Your task to perform on an android device: empty trash in google photos Image 0: 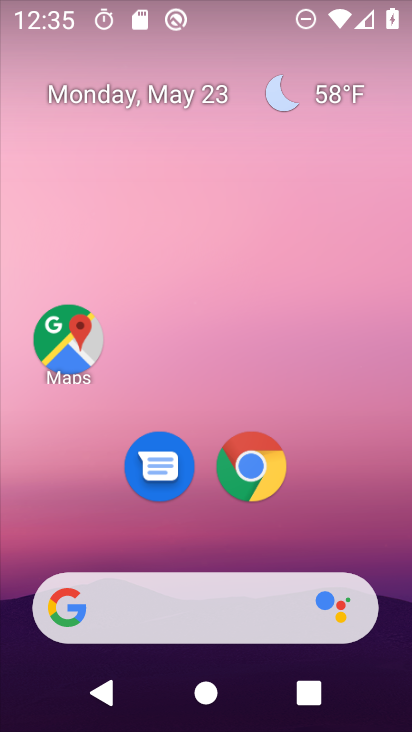
Step 0: drag from (193, 536) to (262, 102)
Your task to perform on an android device: empty trash in google photos Image 1: 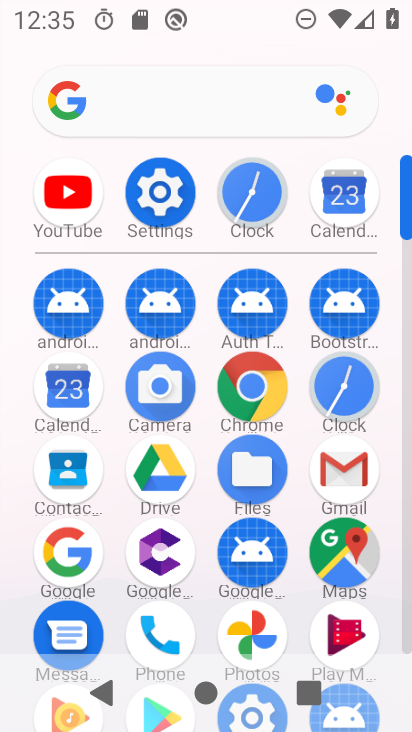
Step 1: click (252, 635)
Your task to perform on an android device: empty trash in google photos Image 2: 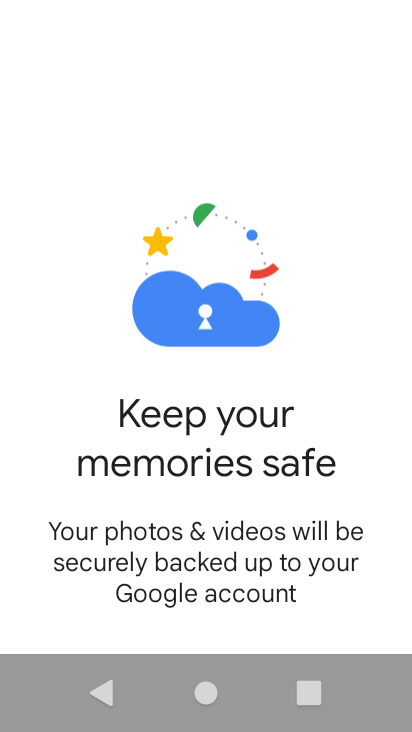
Step 2: task complete